Your task to perform on an android device: change notification settings in the gmail app Image 0: 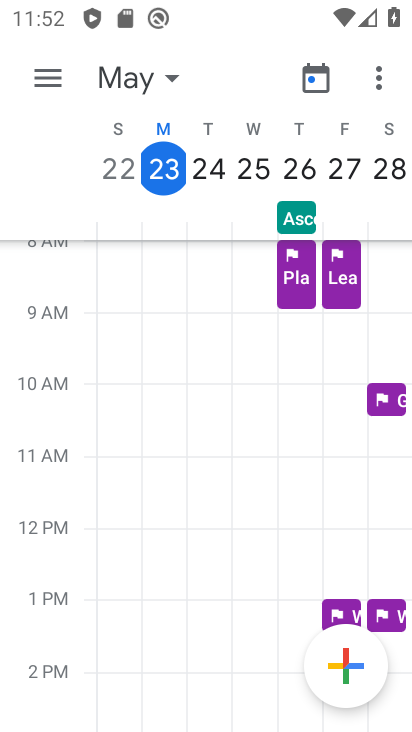
Step 0: press home button
Your task to perform on an android device: change notification settings in the gmail app Image 1: 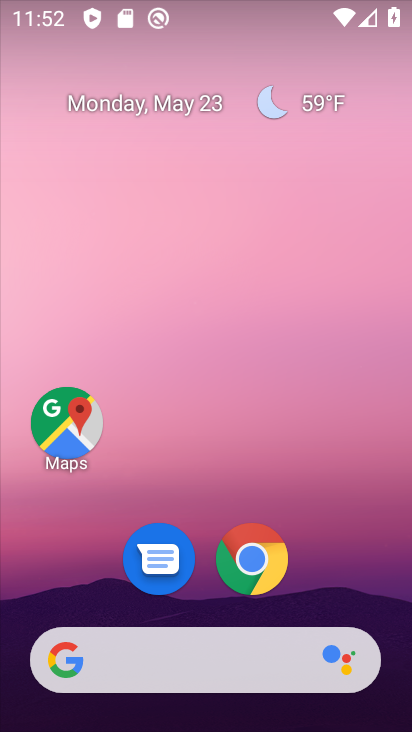
Step 1: drag from (394, 698) to (362, 297)
Your task to perform on an android device: change notification settings in the gmail app Image 2: 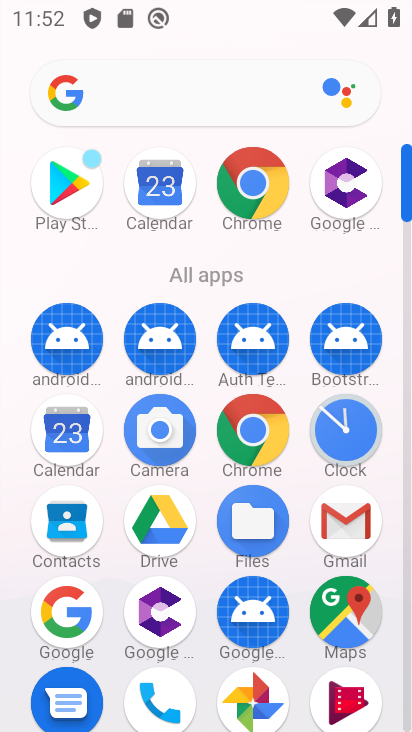
Step 2: click (330, 531)
Your task to perform on an android device: change notification settings in the gmail app Image 3: 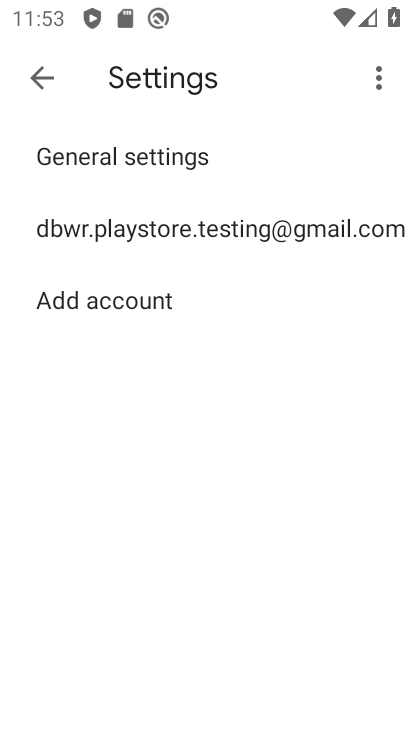
Step 3: click (85, 151)
Your task to perform on an android device: change notification settings in the gmail app Image 4: 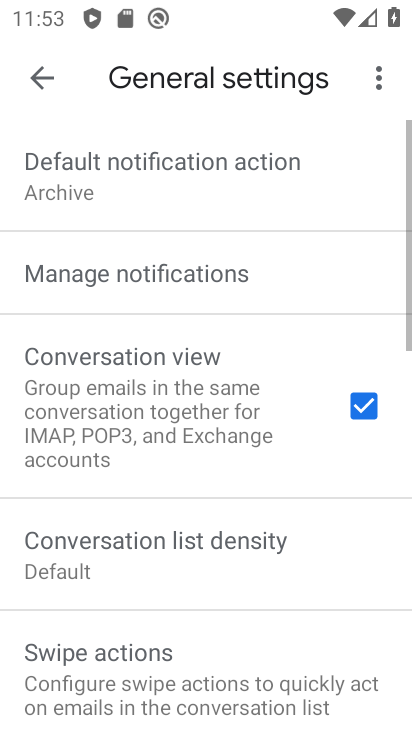
Step 4: click (98, 271)
Your task to perform on an android device: change notification settings in the gmail app Image 5: 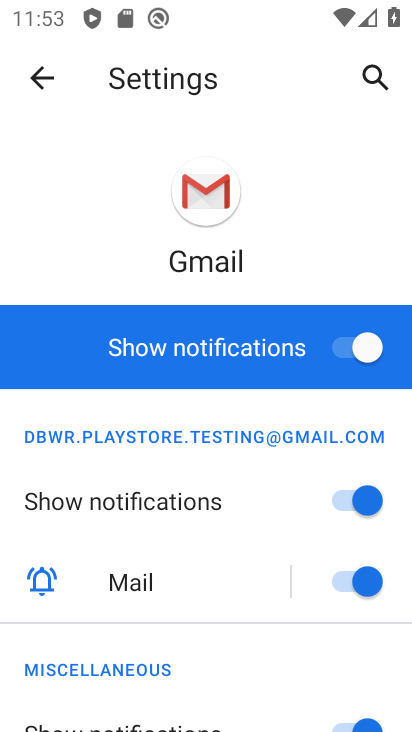
Step 5: click (333, 349)
Your task to perform on an android device: change notification settings in the gmail app Image 6: 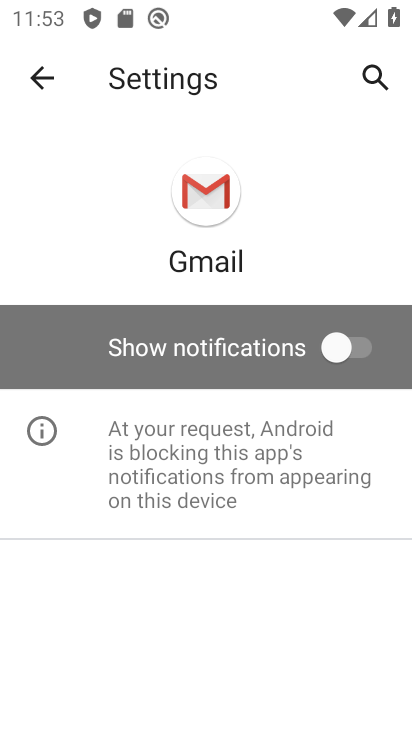
Step 6: task complete